Your task to perform on an android device: turn on the 24-hour format for clock Image 0: 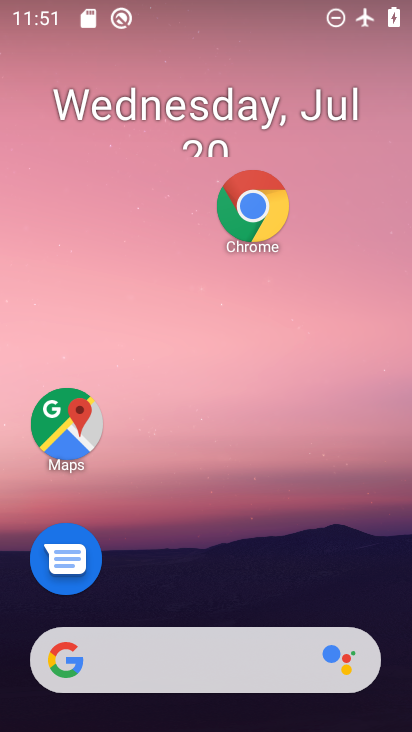
Step 0: drag from (216, 560) to (226, 113)
Your task to perform on an android device: turn on the 24-hour format for clock Image 1: 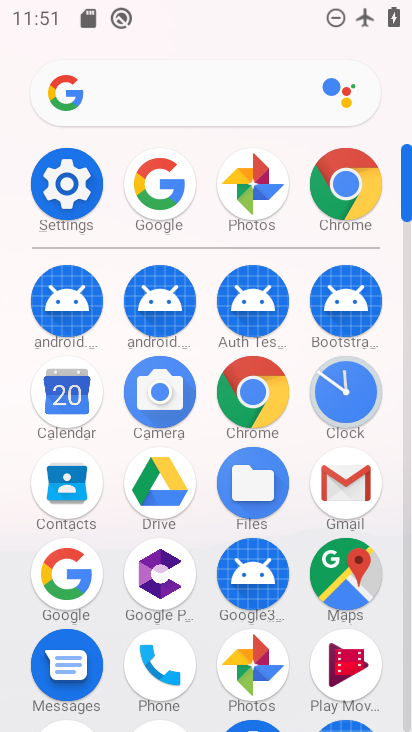
Step 1: click (72, 199)
Your task to perform on an android device: turn on the 24-hour format for clock Image 2: 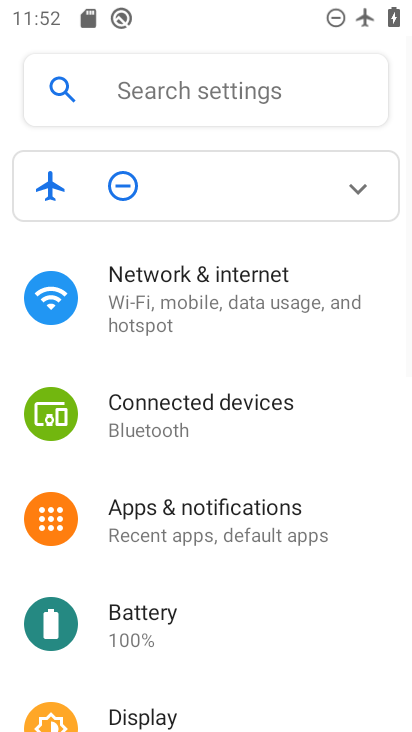
Step 2: press back button
Your task to perform on an android device: turn on the 24-hour format for clock Image 3: 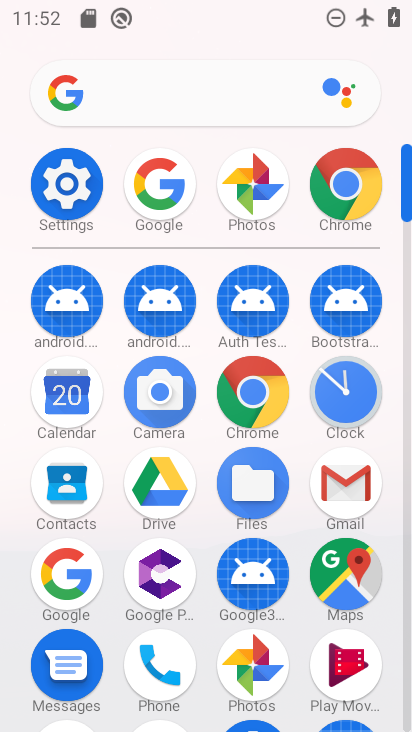
Step 3: click (327, 403)
Your task to perform on an android device: turn on the 24-hour format for clock Image 4: 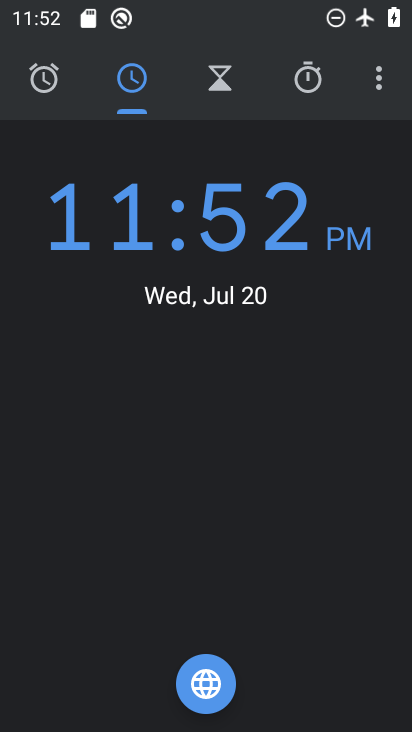
Step 4: click (377, 87)
Your task to perform on an android device: turn on the 24-hour format for clock Image 5: 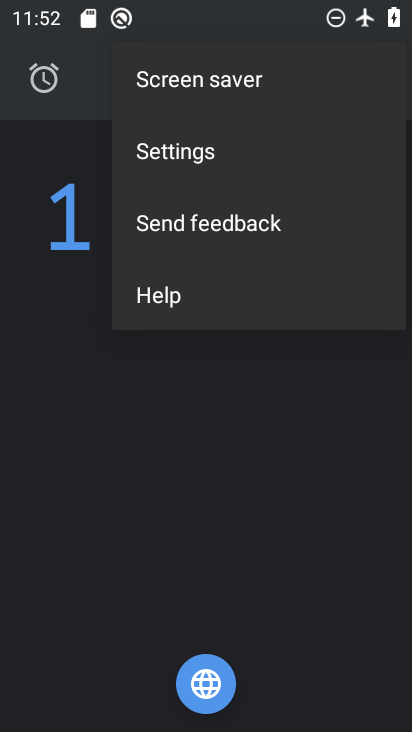
Step 5: click (205, 159)
Your task to perform on an android device: turn on the 24-hour format for clock Image 6: 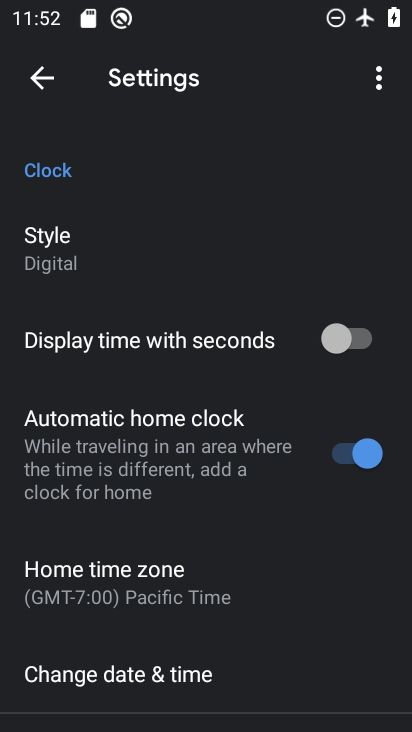
Step 6: drag from (175, 531) to (189, 304)
Your task to perform on an android device: turn on the 24-hour format for clock Image 7: 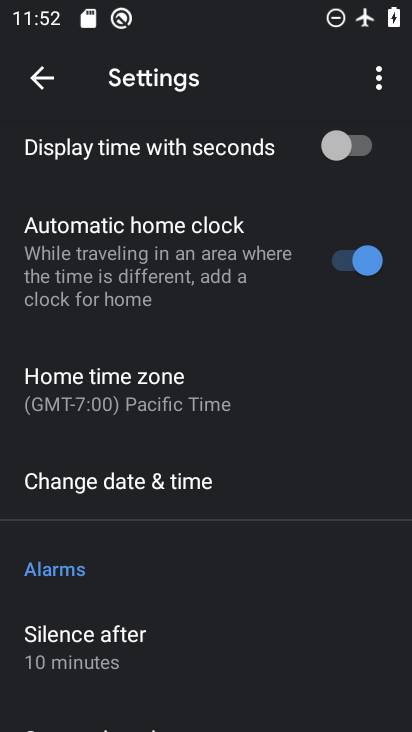
Step 7: click (182, 481)
Your task to perform on an android device: turn on the 24-hour format for clock Image 8: 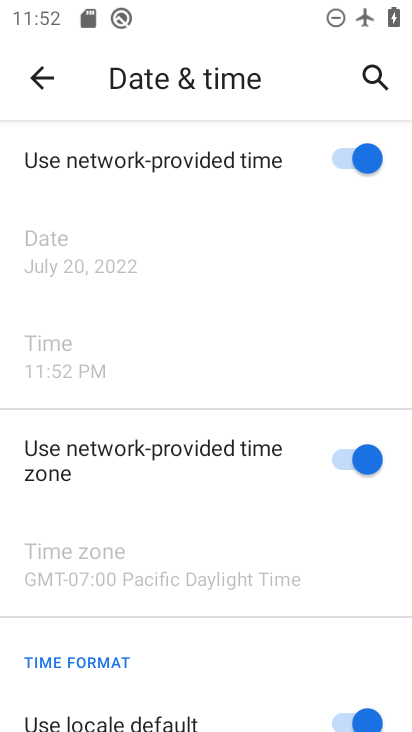
Step 8: task complete